Your task to perform on an android device: toggle translation in the chrome app Image 0: 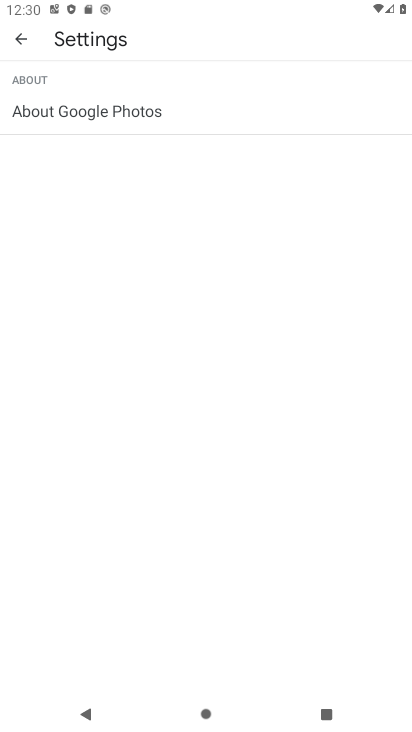
Step 0: press home button
Your task to perform on an android device: toggle translation in the chrome app Image 1: 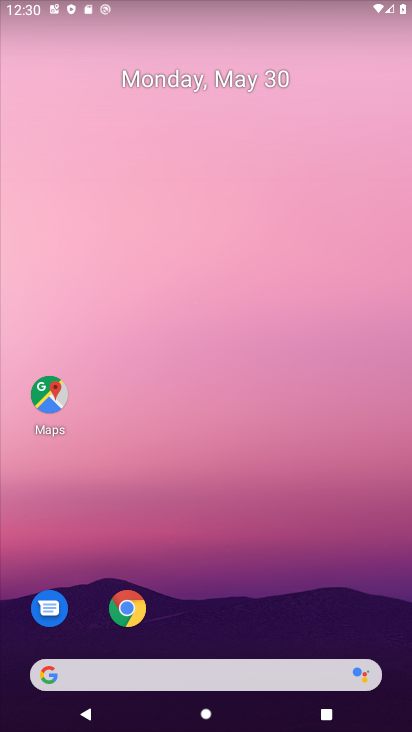
Step 1: drag from (236, 635) to (365, 2)
Your task to perform on an android device: toggle translation in the chrome app Image 2: 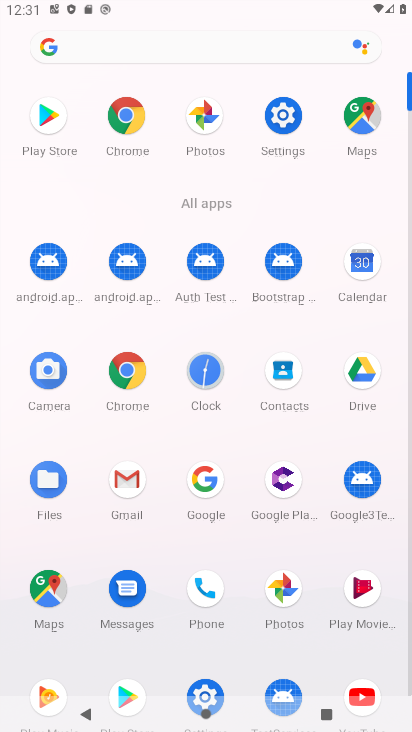
Step 2: click (134, 363)
Your task to perform on an android device: toggle translation in the chrome app Image 3: 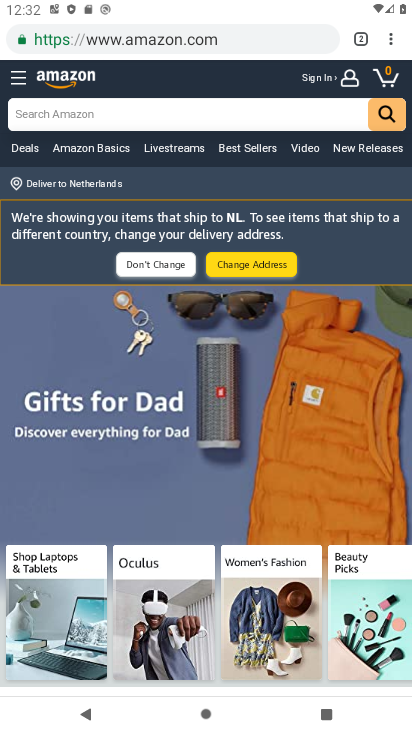
Step 3: click (403, 39)
Your task to perform on an android device: toggle translation in the chrome app Image 4: 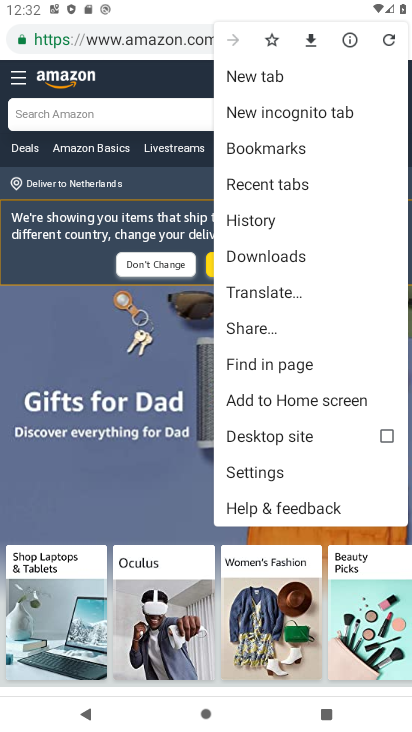
Step 4: click (266, 466)
Your task to perform on an android device: toggle translation in the chrome app Image 5: 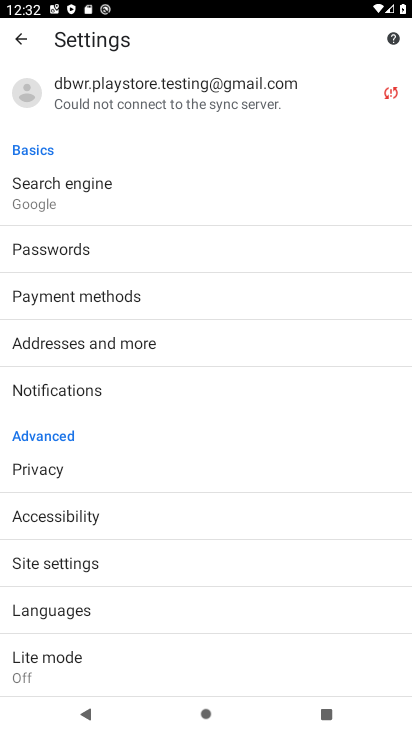
Step 5: click (89, 612)
Your task to perform on an android device: toggle translation in the chrome app Image 6: 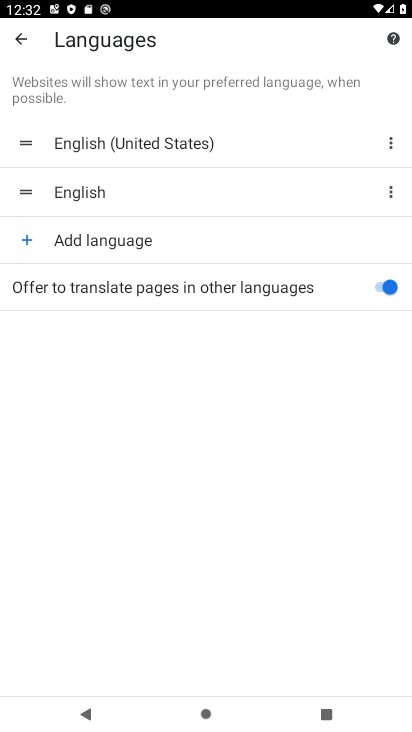
Step 6: click (379, 280)
Your task to perform on an android device: toggle translation in the chrome app Image 7: 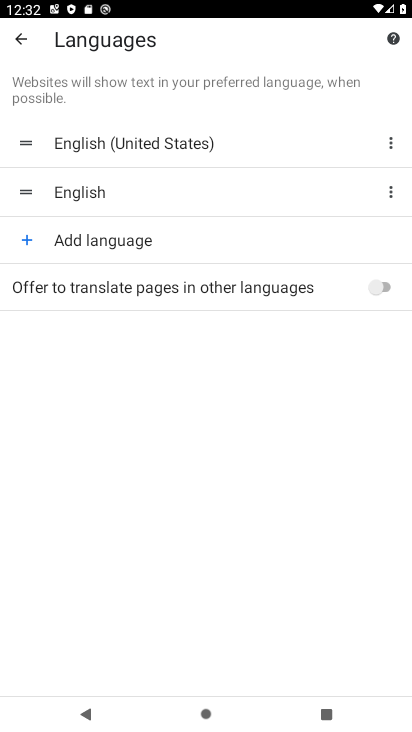
Step 7: task complete